Your task to perform on an android device: change the upload size in google photos Image 0: 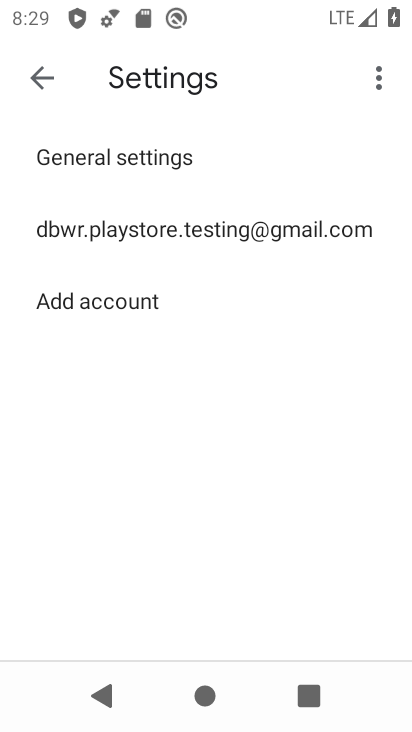
Step 0: press home button
Your task to perform on an android device: change the upload size in google photos Image 1: 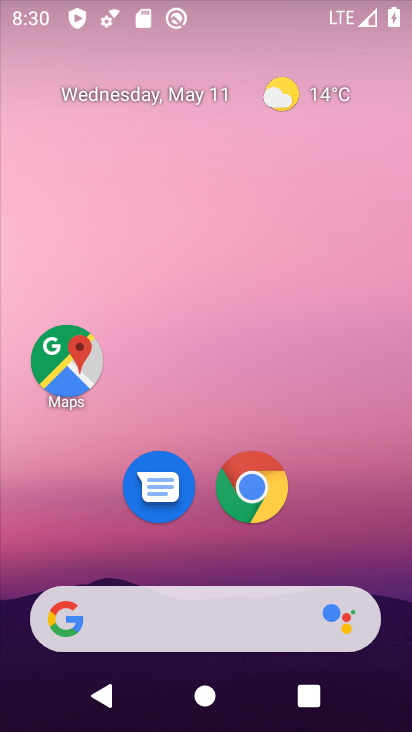
Step 1: drag from (269, 558) to (288, 177)
Your task to perform on an android device: change the upload size in google photos Image 2: 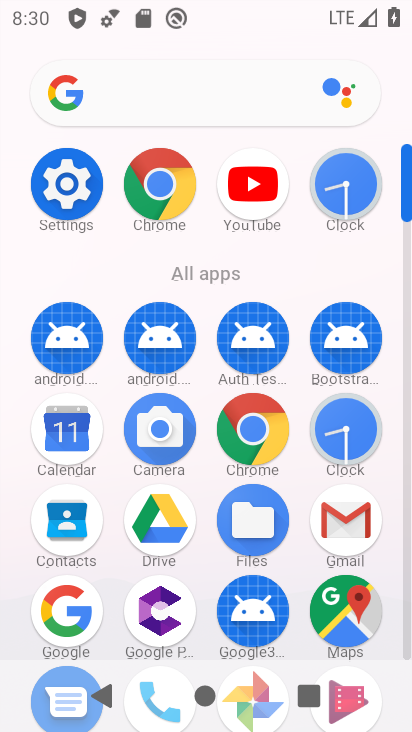
Step 2: drag from (205, 567) to (198, 342)
Your task to perform on an android device: change the upload size in google photos Image 3: 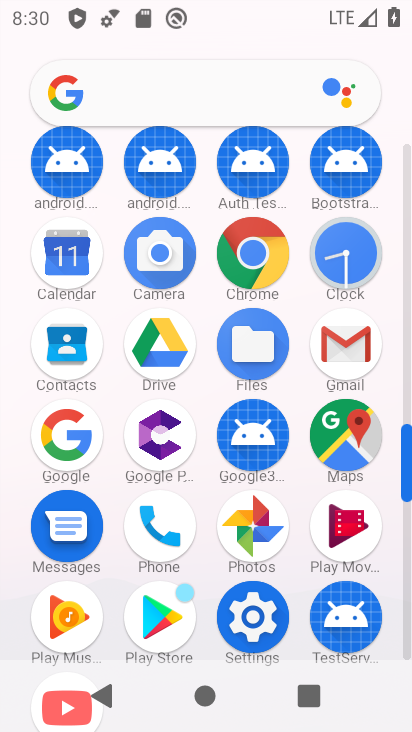
Step 3: click (257, 538)
Your task to perform on an android device: change the upload size in google photos Image 4: 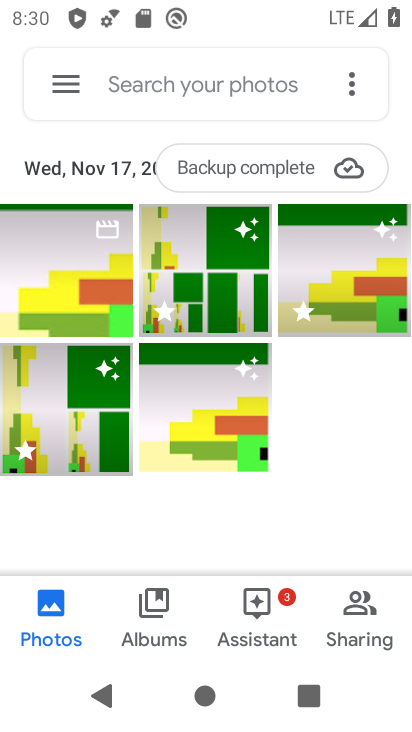
Step 4: click (57, 83)
Your task to perform on an android device: change the upload size in google photos Image 5: 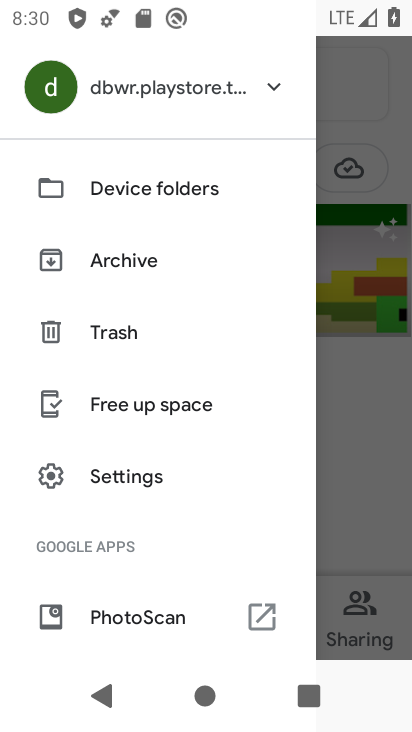
Step 5: click (131, 483)
Your task to perform on an android device: change the upload size in google photos Image 6: 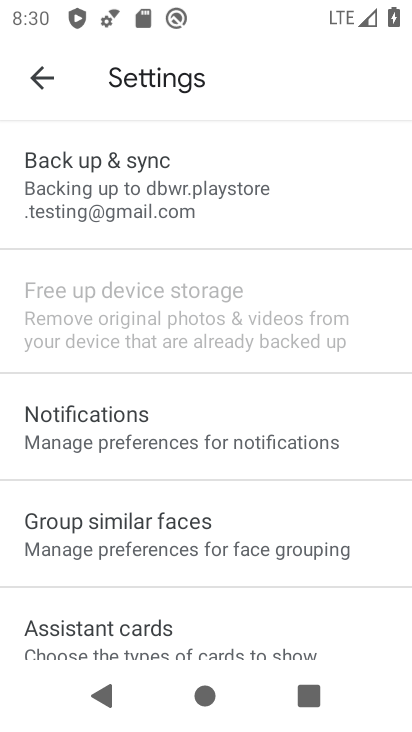
Step 6: click (129, 156)
Your task to perform on an android device: change the upload size in google photos Image 7: 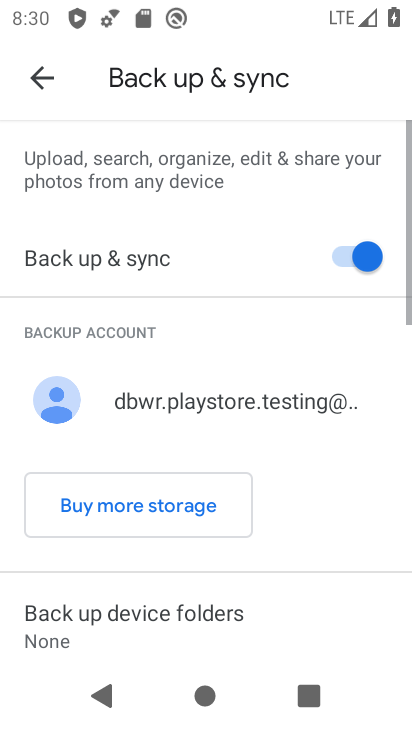
Step 7: drag from (165, 556) to (178, 324)
Your task to perform on an android device: change the upload size in google photos Image 8: 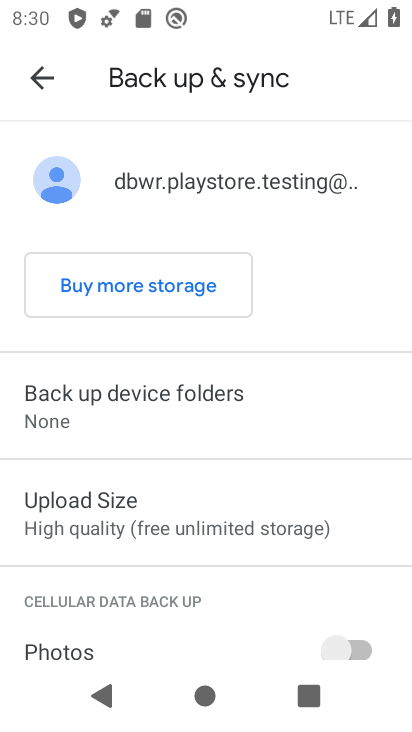
Step 8: click (121, 527)
Your task to perform on an android device: change the upload size in google photos Image 9: 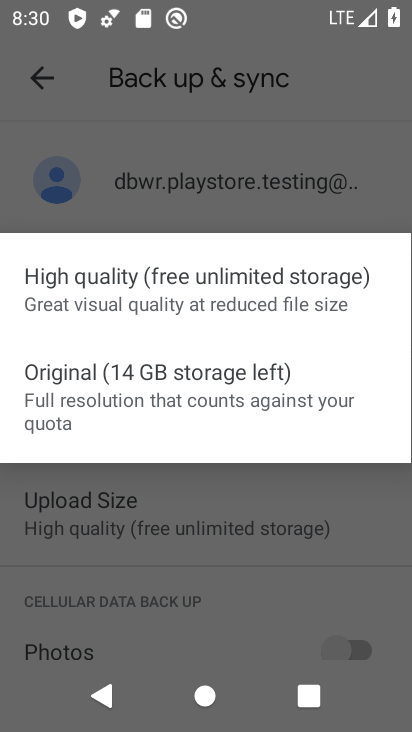
Step 9: click (160, 411)
Your task to perform on an android device: change the upload size in google photos Image 10: 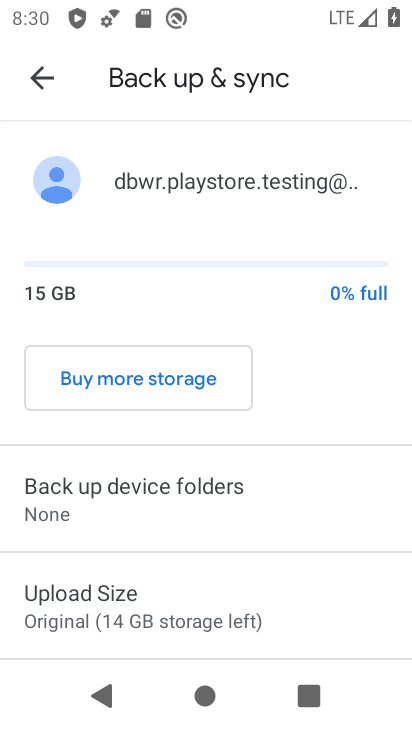
Step 10: task complete